Your task to perform on an android device: Show me recent news Image 0: 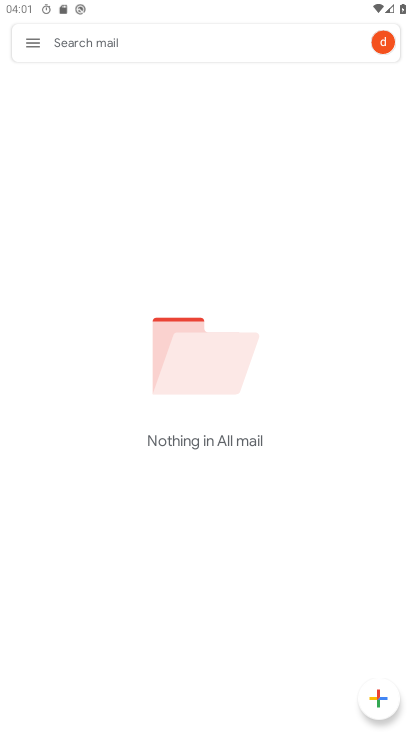
Step 0: press home button
Your task to perform on an android device: Show me recent news Image 1: 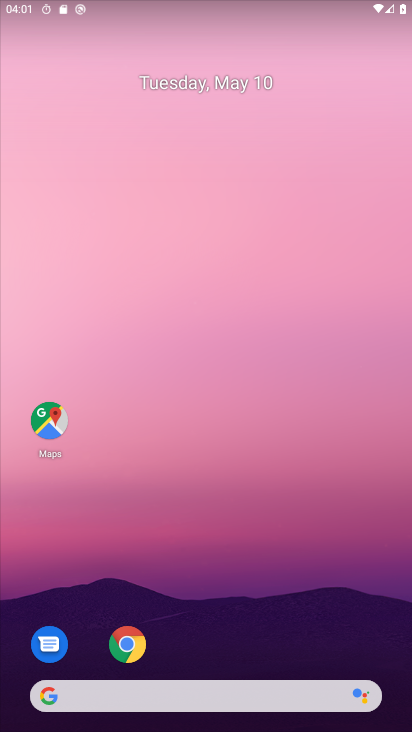
Step 1: task complete